Your task to perform on an android device: allow notifications from all sites in the chrome app Image 0: 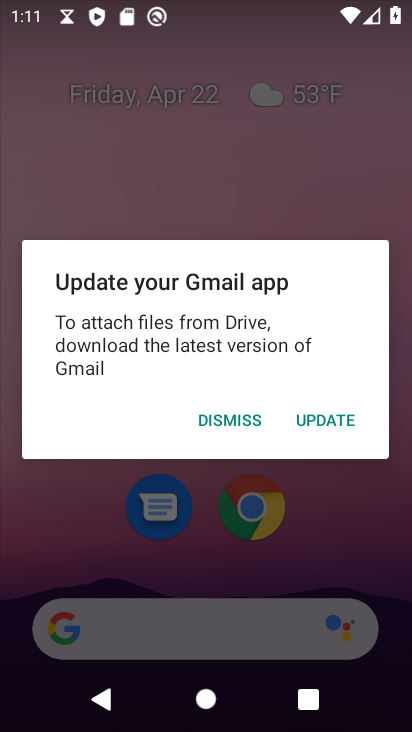
Step 0: press home button
Your task to perform on an android device: allow notifications from all sites in the chrome app Image 1: 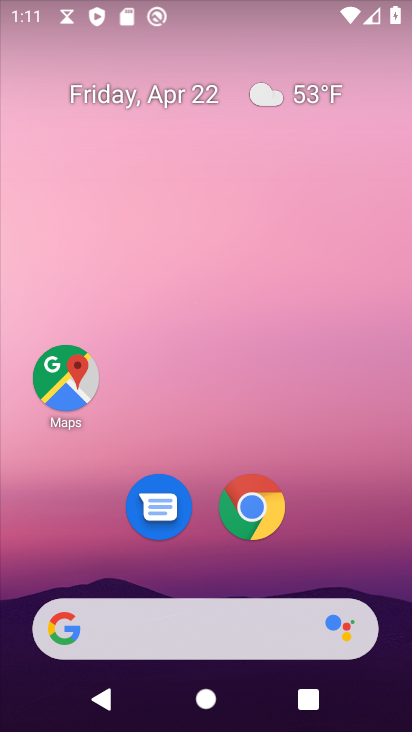
Step 1: drag from (353, 548) to (344, 174)
Your task to perform on an android device: allow notifications from all sites in the chrome app Image 2: 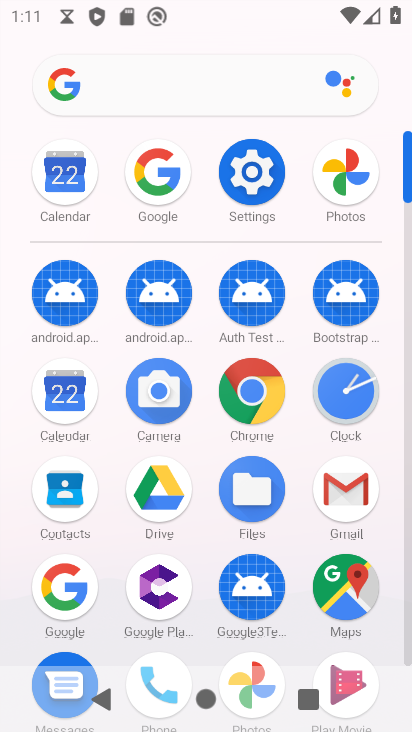
Step 2: click (254, 404)
Your task to perform on an android device: allow notifications from all sites in the chrome app Image 3: 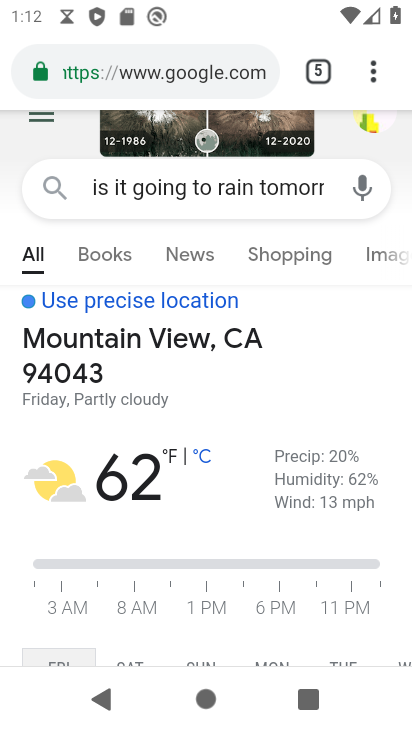
Step 3: drag from (370, 76) to (217, 496)
Your task to perform on an android device: allow notifications from all sites in the chrome app Image 4: 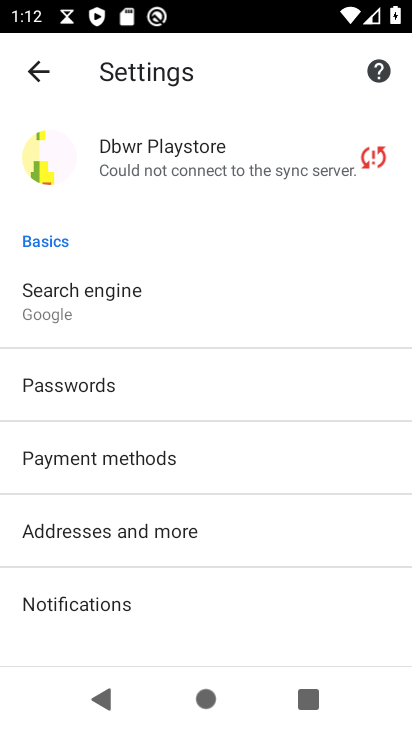
Step 4: click (63, 596)
Your task to perform on an android device: allow notifications from all sites in the chrome app Image 5: 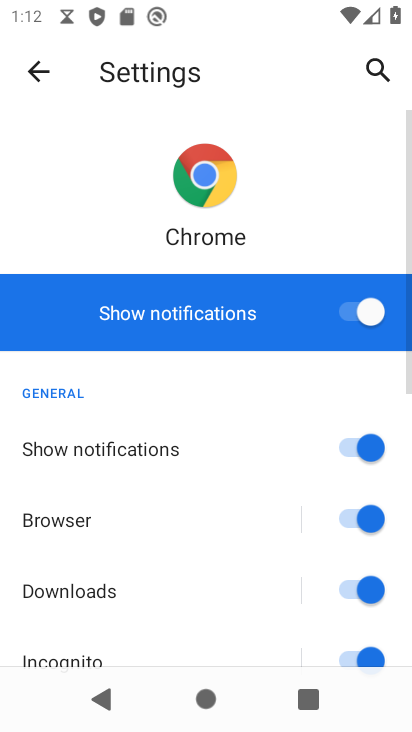
Step 5: task complete